Your task to perform on an android device: toggle data saver in the chrome app Image 0: 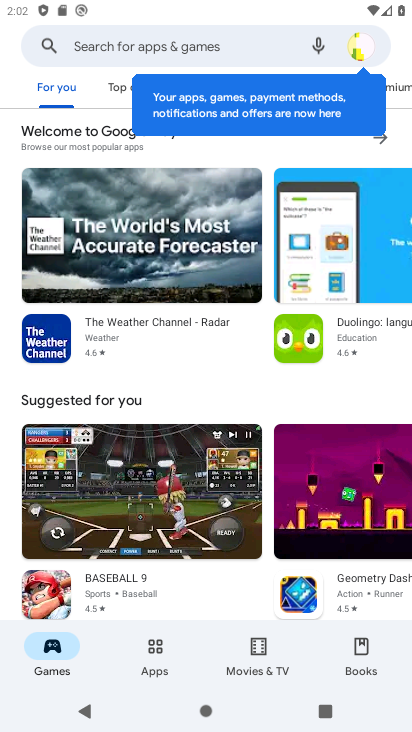
Step 0: press back button
Your task to perform on an android device: toggle data saver in the chrome app Image 1: 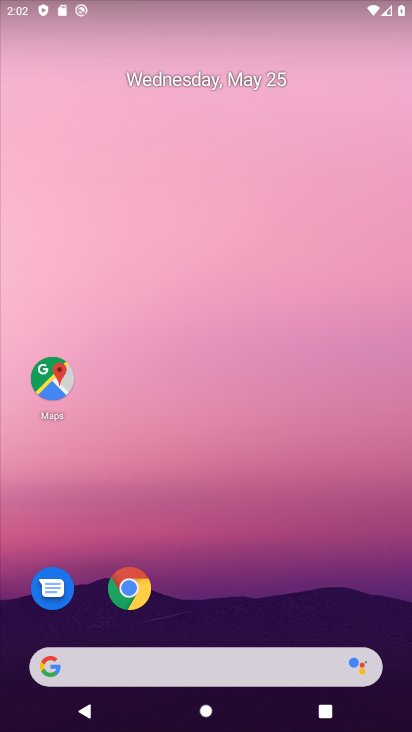
Step 1: drag from (247, 547) to (237, 59)
Your task to perform on an android device: toggle data saver in the chrome app Image 2: 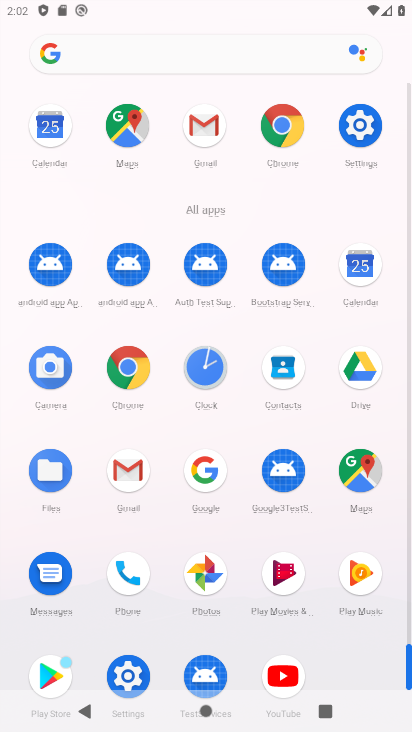
Step 2: click (3, 198)
Your task to perform on an android device: toggle data saver in the chrome app Image 3: 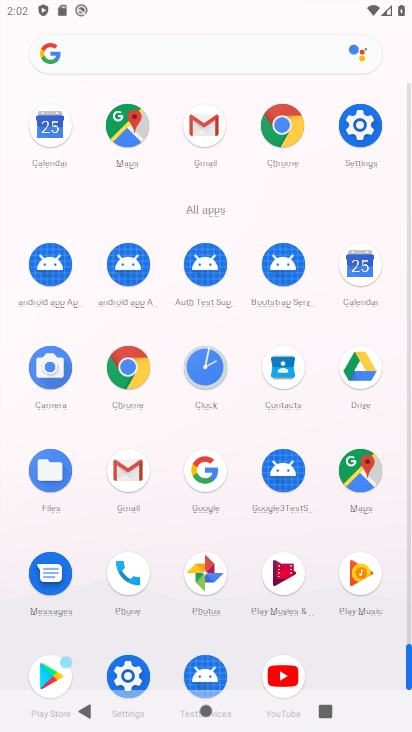
Step 3: drag from (23, 544) to (14, 269)
Your task to perform on an android device: toggle data saver in the chrome app Image 4: 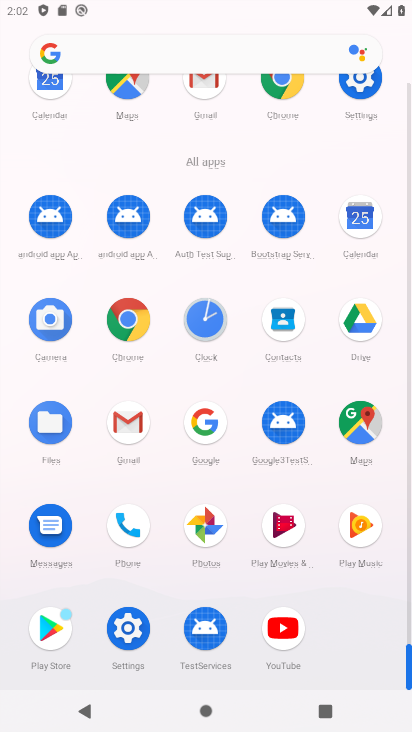
Step 4: click (123, 319)
Your task to perform on an android device: toggle data saver in the chrome app Image 5: 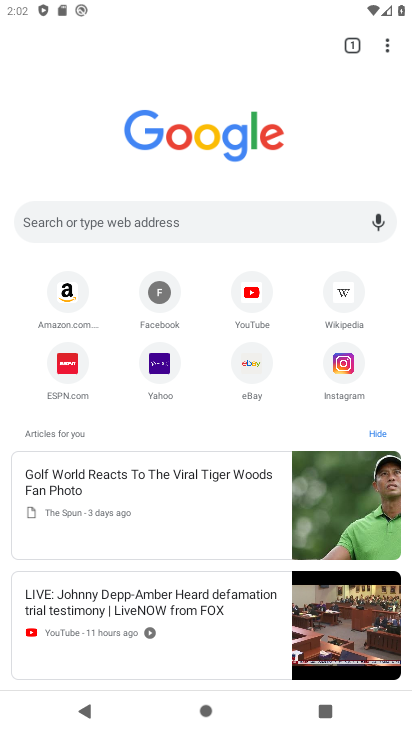
Step 5: drag from (385, 40) to (247, 373)
Your task to perform on an android device: toggle data saver in the chrome app Image 6: 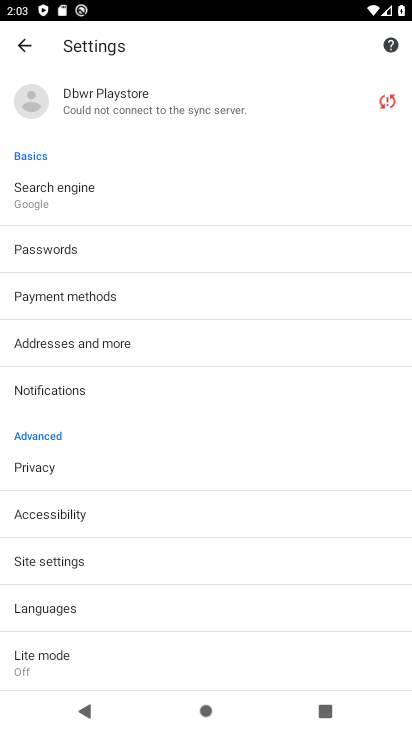
Step 6: drag from (177, 534) to (167, 93)
Your task to perform on an android device: toggle data saver in the chrome app Image 7: 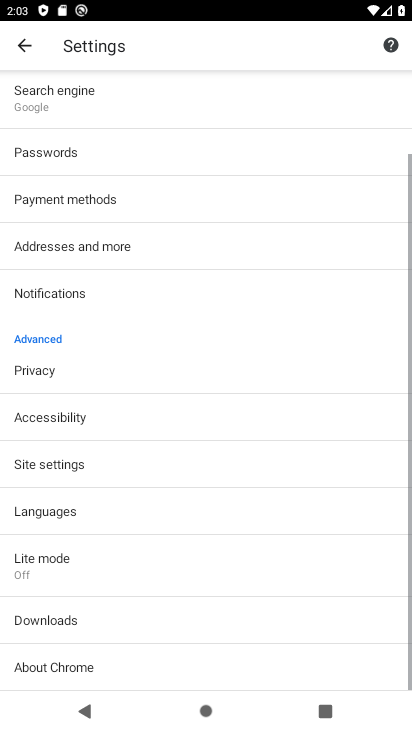
Step 7: drag from (170, 588) to (161, 178)
Your task to perform on an android device: toggle data saver in the chrome app Image 8: 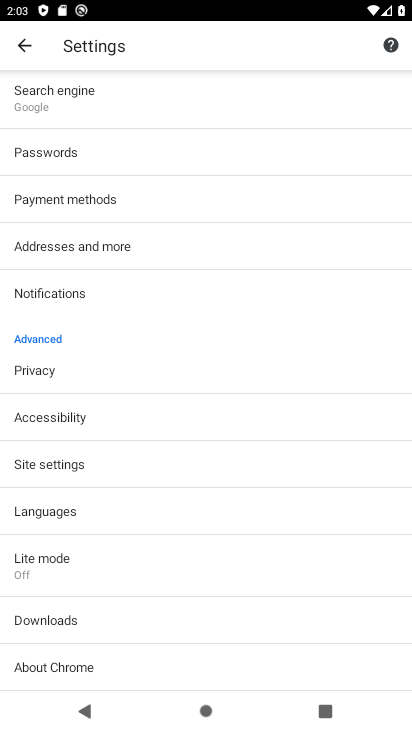
Step 8: click (74, 559)
Your task to perform on an android device: toggle data saver in the chrome app Image 9: 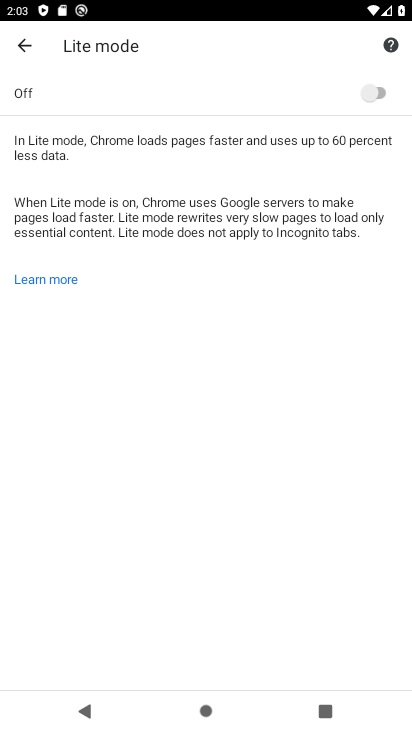
Step 9: click (374, 93)
Your task to perform on an android device: toggle data saver in the chrome app Image 10: 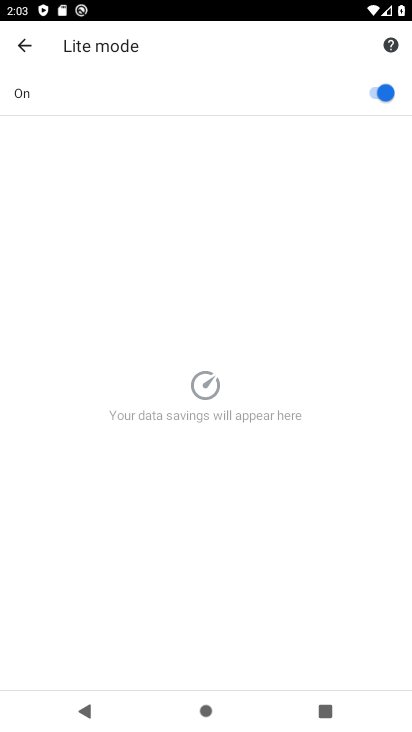
Step 10: click (381, 90)
Your task to perform on an android device: toggle data saver in the chrome app Image 11: 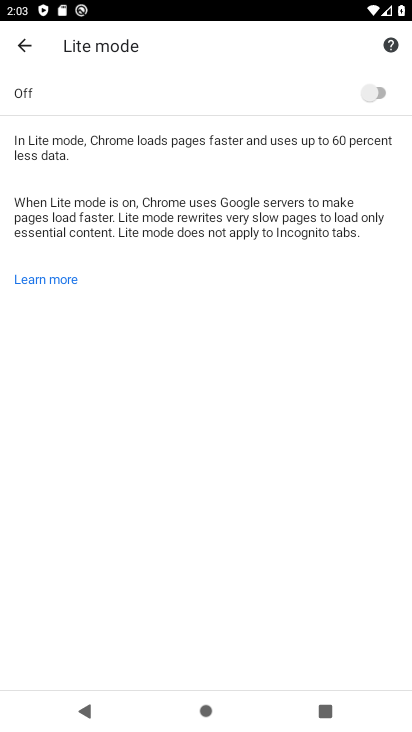
Step 11: task complete